Your task to perform on an android device: turn on showing notifications on the lock screen Image 0: 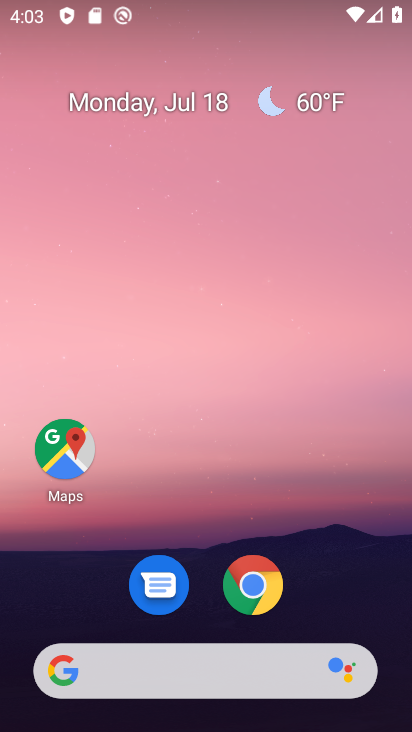
Step 0: drag from (232, 508) to (321, 26)
Your task to perform on an android device: turn on showing notifications on the lock screen Image 1: 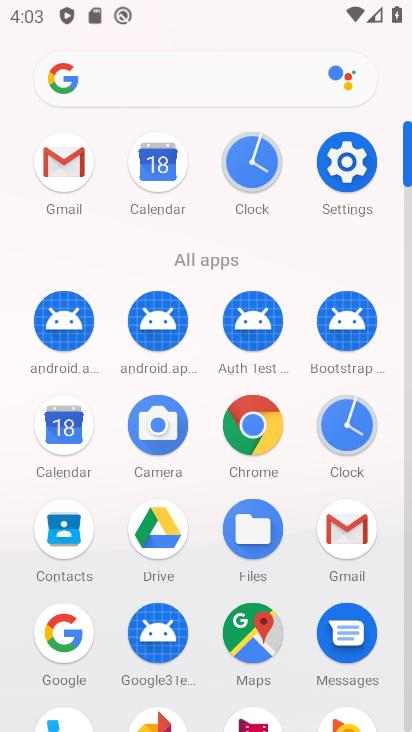
Step 1: click (347, 172)
Your task to perform on an android device: turn on showing notifications on the lock screen Image 2: 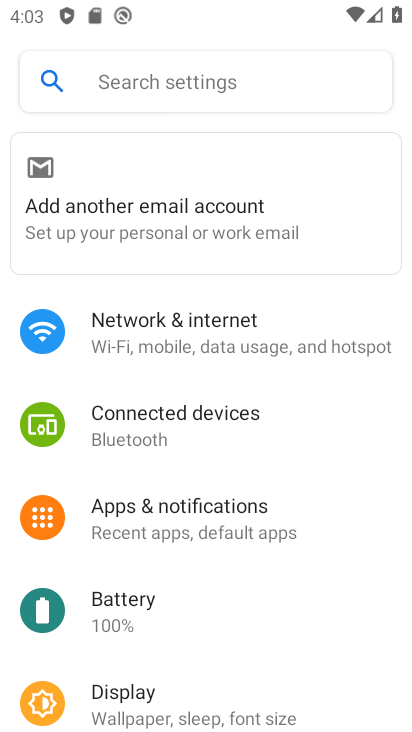
Step 2: click (189, 527)
Your task to perform on an android device: turn on showing notifications on the lock screen Image 3: 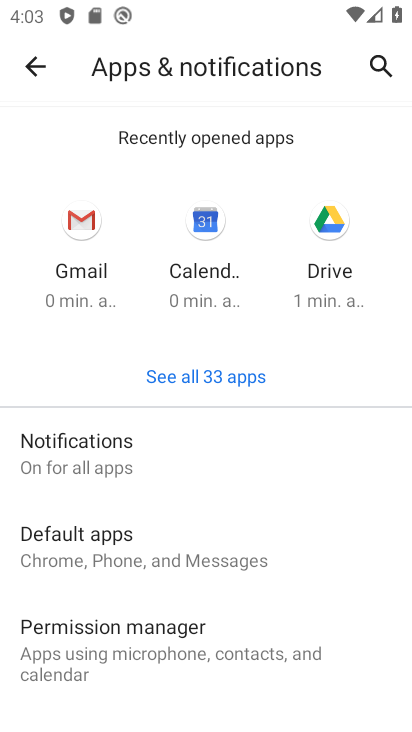
Step 3: click (117, 462)
Your task to perform on an android device: turn on showing notifications on the lock screen Image 4: 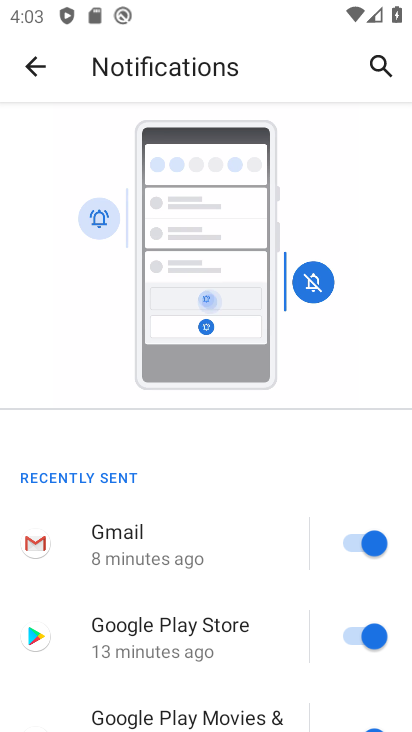
Step 4: drag from (204, 672) to (271, 160)
Your task to perform on an android device: turn on showing notifications on the lock screen Image 5: 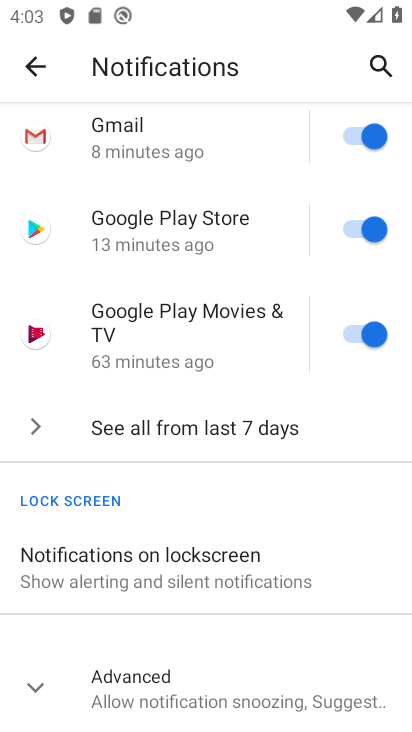
Step 5: click (169, 562)
Your task to perform on an android device: turn on showing notifications on the lock screen Image 6: 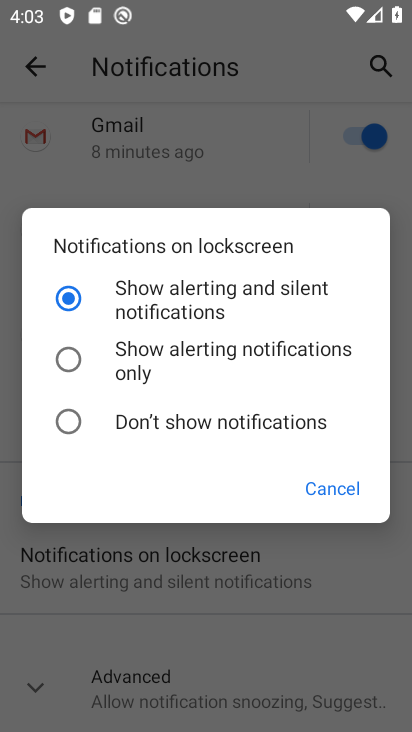
Step 6: click (308, 488)
Your task to perform on an android device: turn on showing notifications on the lock screen Image 7: 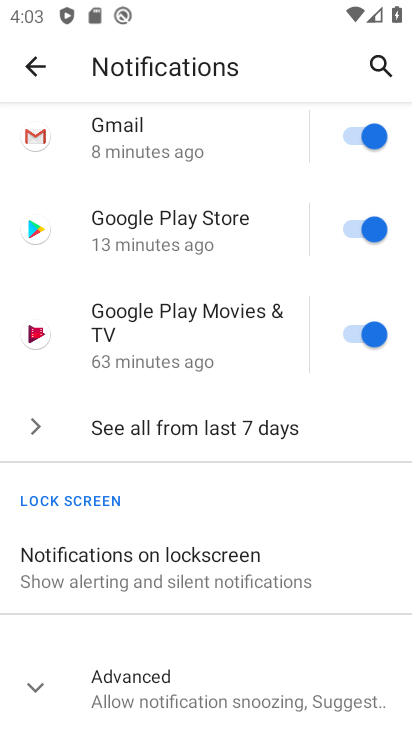
Step 7: task complete